Your task to perform on an android device: What's the weather like in Mexico City? Image 0: 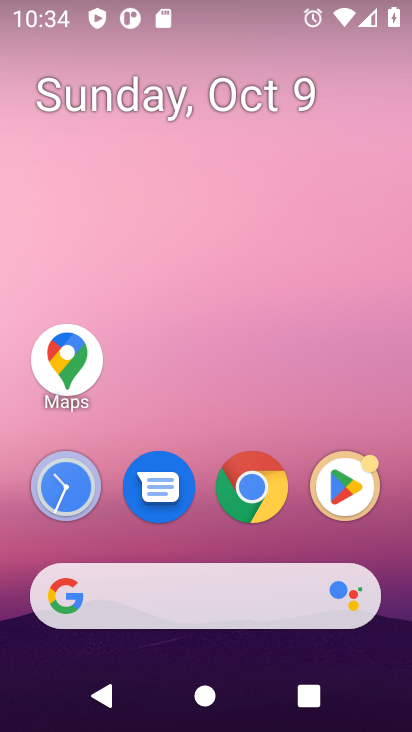
Step 0: drag from (200, 556) to (190, 10)
Your task to perform on an android device: What's the weather like in Mexico City? Image 1: 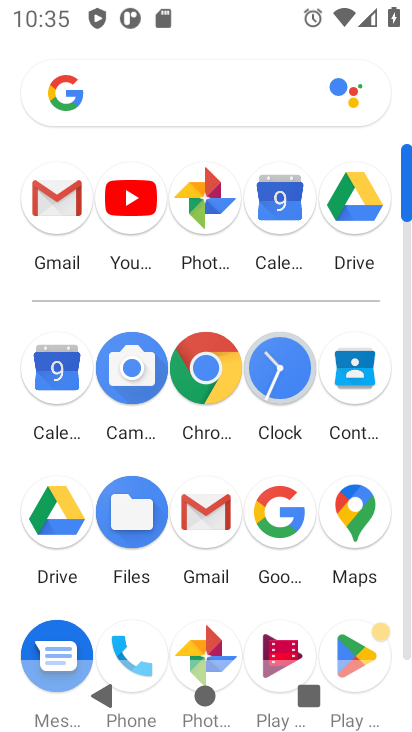
Step 1: click (282, 516)
Your task to perform on an android device: What's the weather like in Mexico City? Image 2: 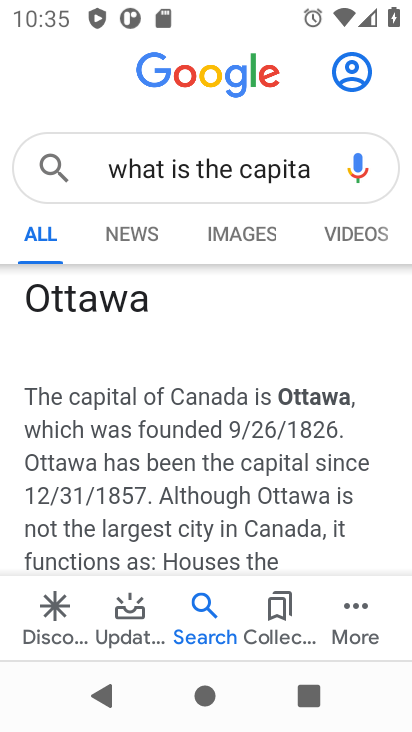
Step 2: click (271, 173)
Your task to perform on an android device: What's the weather like in Mexico City? Image 3: 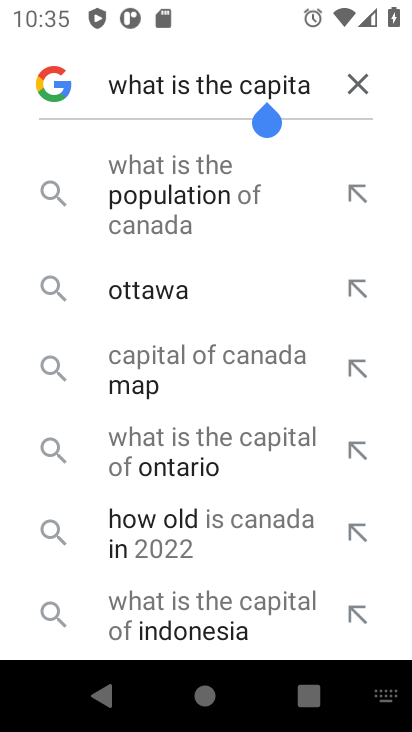
Step 3: click (352, 80)
Your task to perform on an android device: What's the weather like in Mexico City? Image 4: 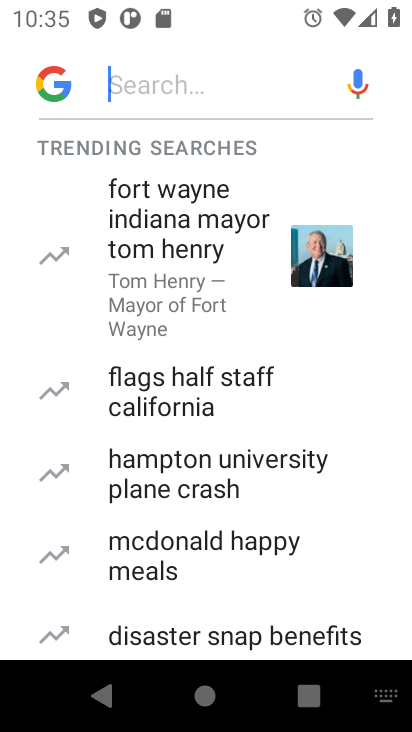
Step 4: type "What's the weather like in Mexico City?"
Your task to perform on an android device: What's the weather like in Mexico City? Image 5: 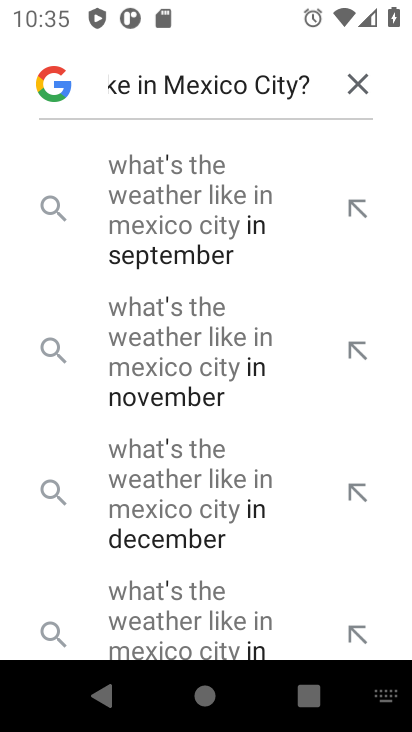
Step 5: click (136, 170)
Your task to perform on an android device: What's the weather like in Mexico City? Image 6: 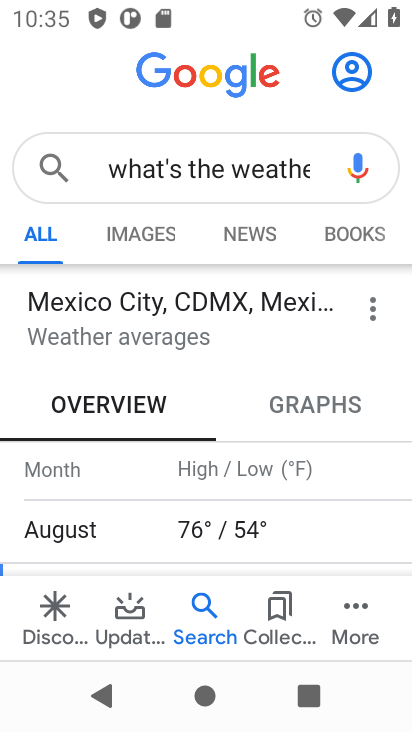
Step 6: task complete